Your task to perform on an android device: Show the shopping cart on costco. Image 0: 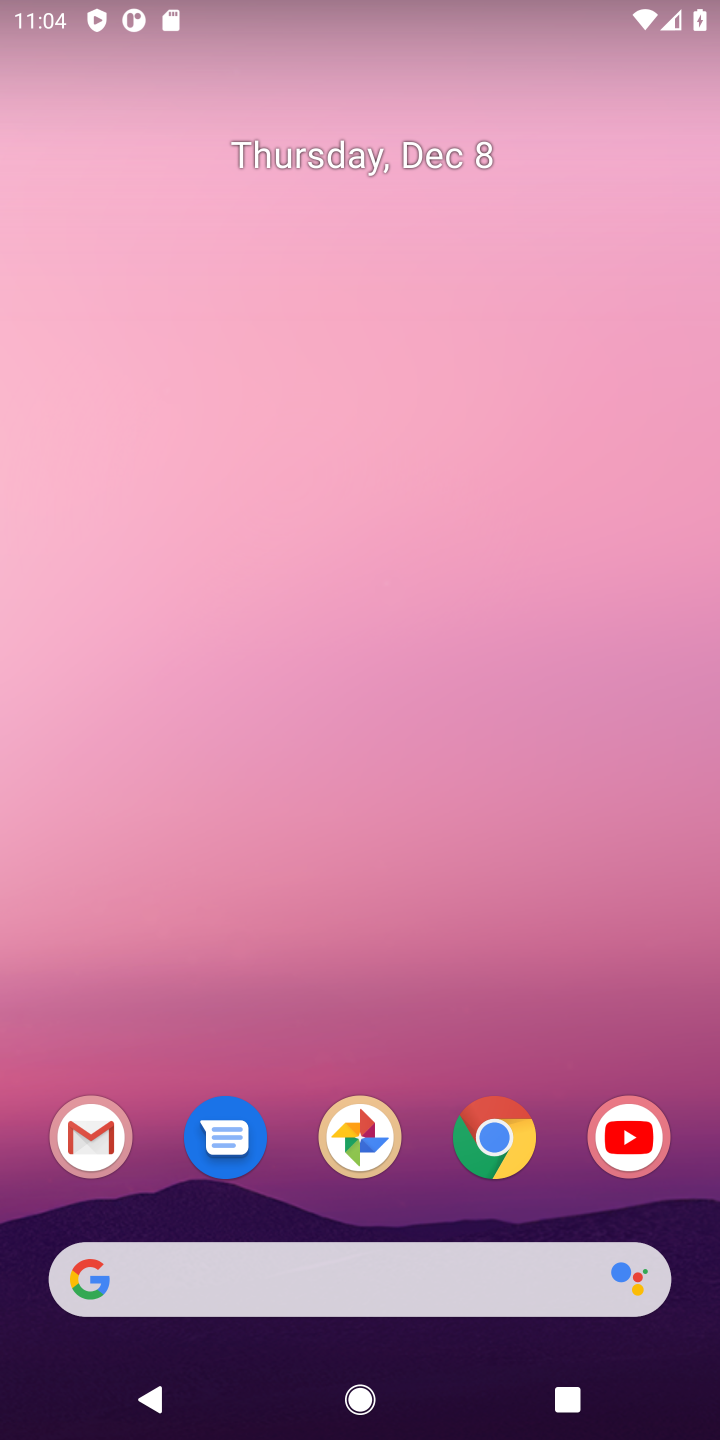
Step 0: click (534, 1132)
Your task to perform on an android device: Show the shopping cart on costco. Image 1: 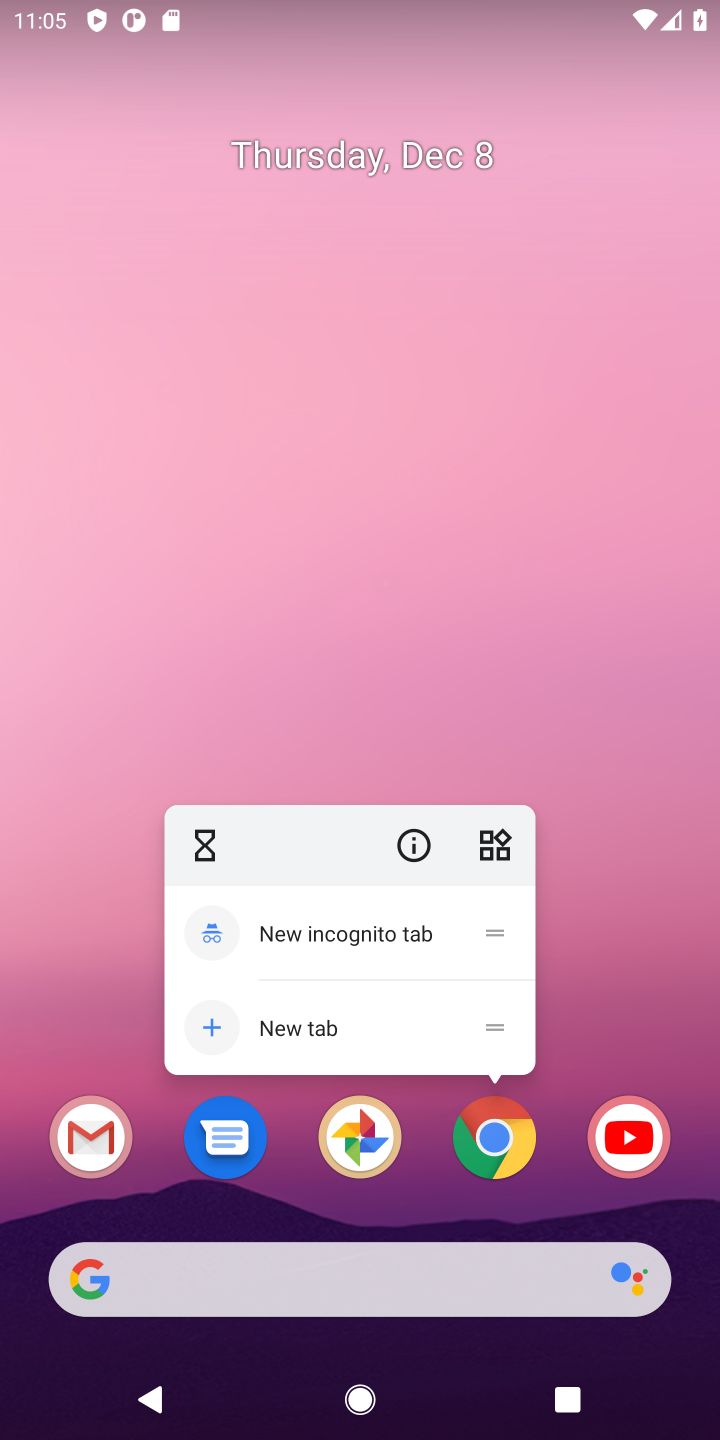
Step 1: click (488, 1107)
Your task to perform on an android device: Show the shopping cart on costco. Image 2: 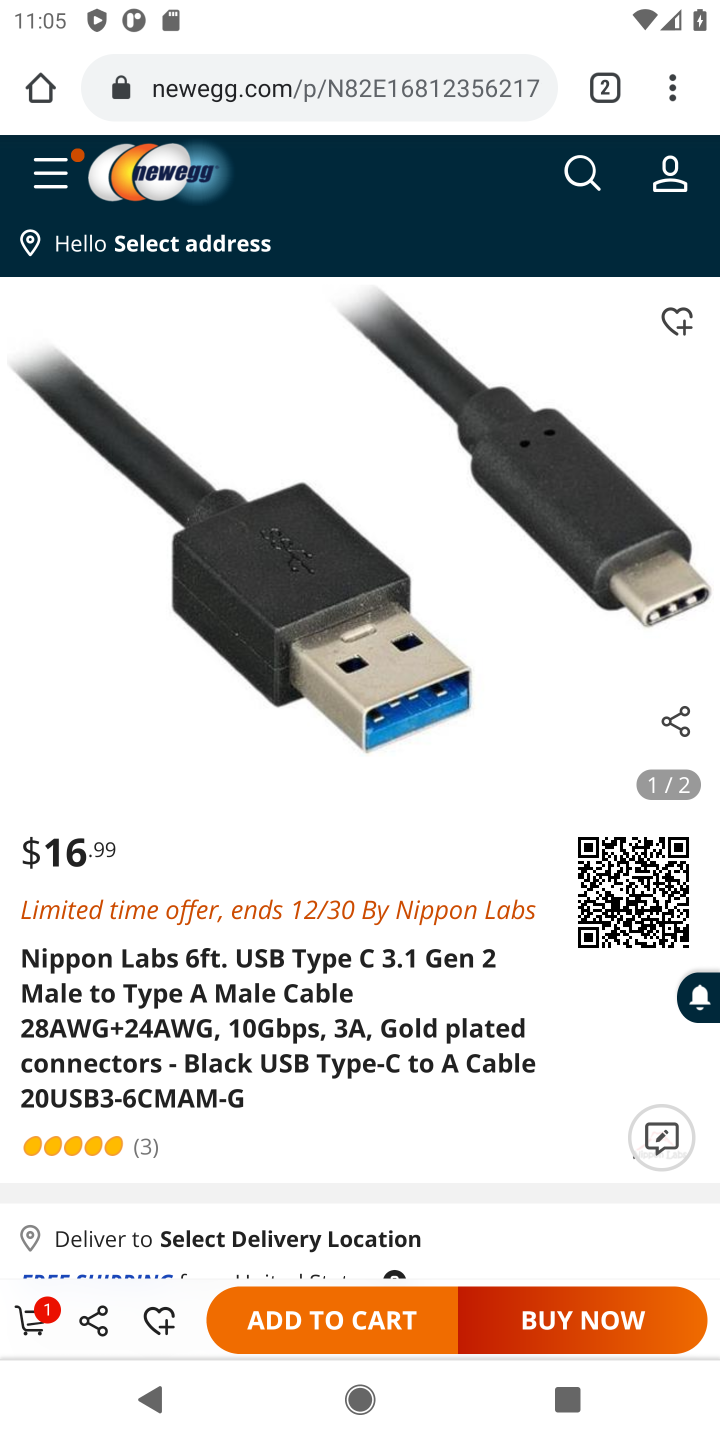
Step 2: click (427, 97)
Your task to perform on an android device: Show the shopping cart on costco. Image 3: 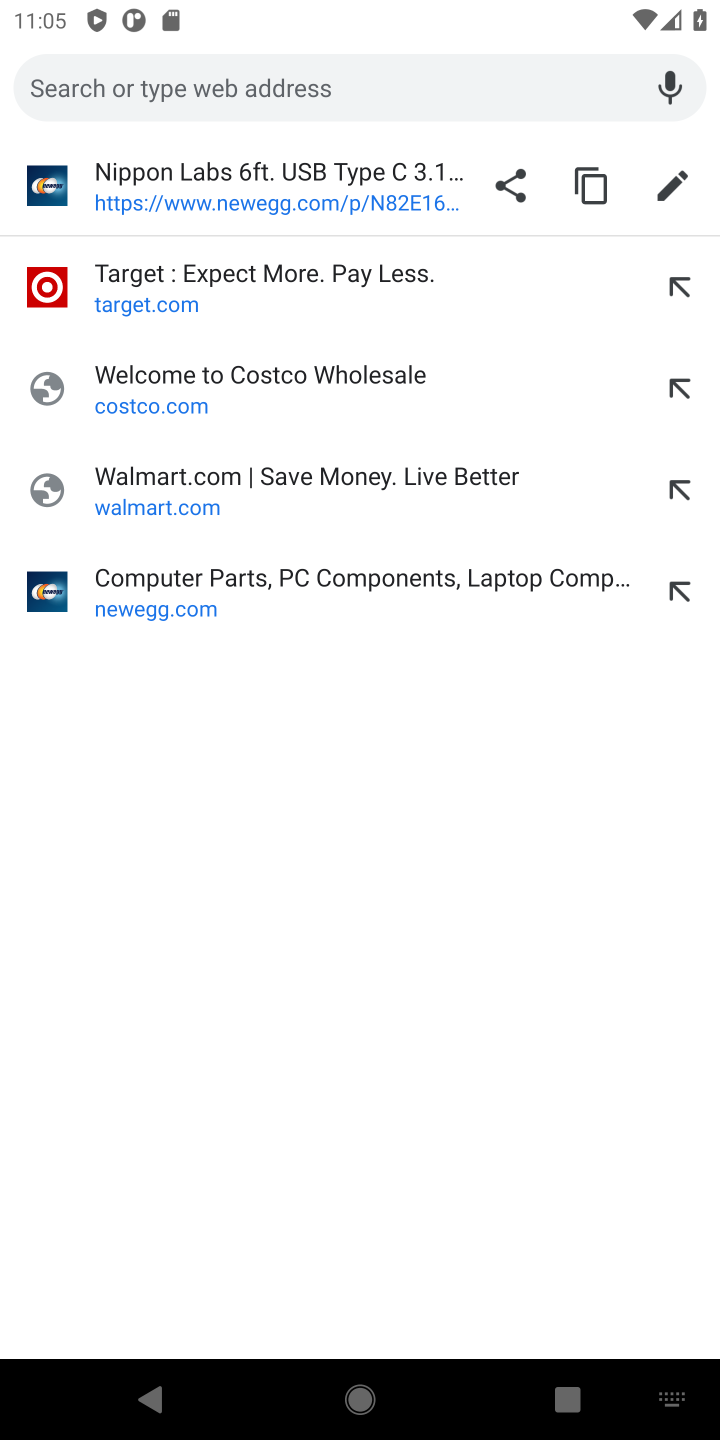
Step 3: type "costco"
Your task to perform on an android device: Show the shopping cart on costco. Image 4: 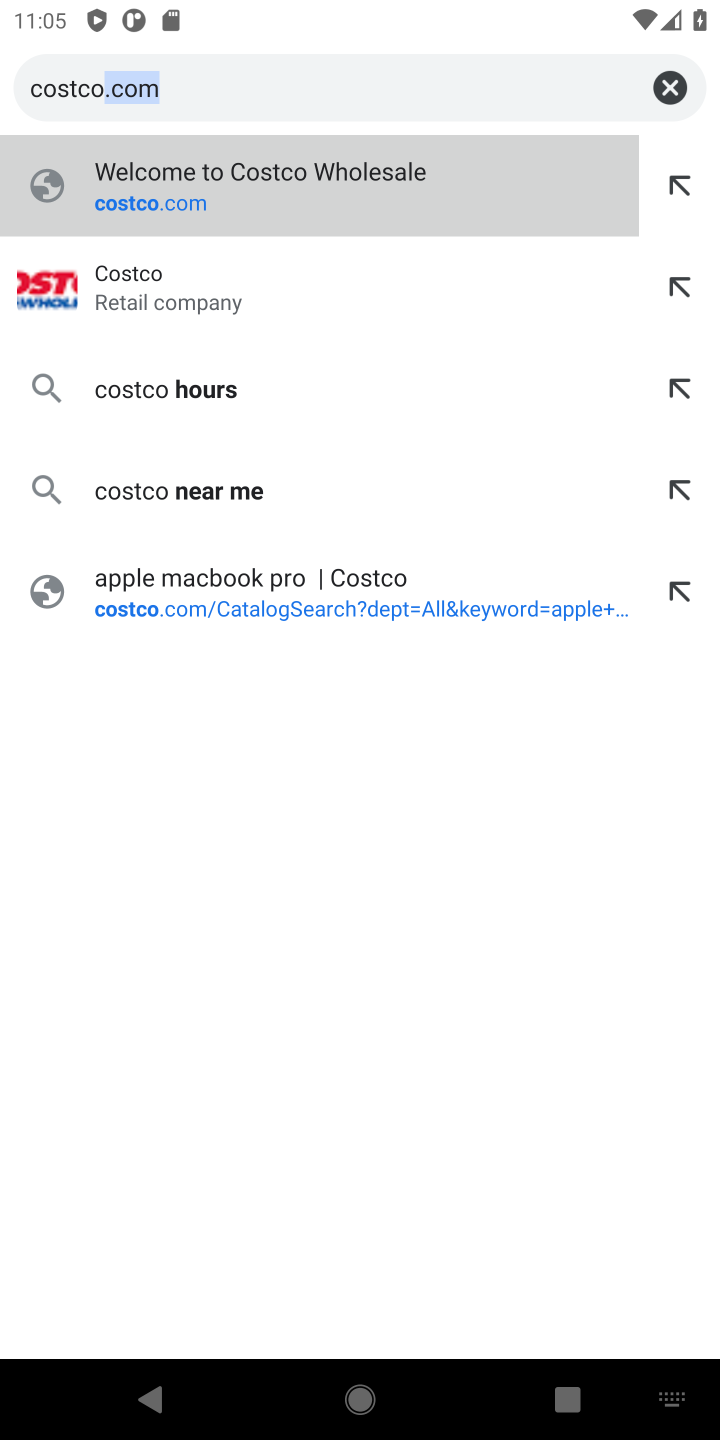
Step 4: click (144, 189)
Your task to perform on an android device: Show the shopping cart on costco. Image 5: 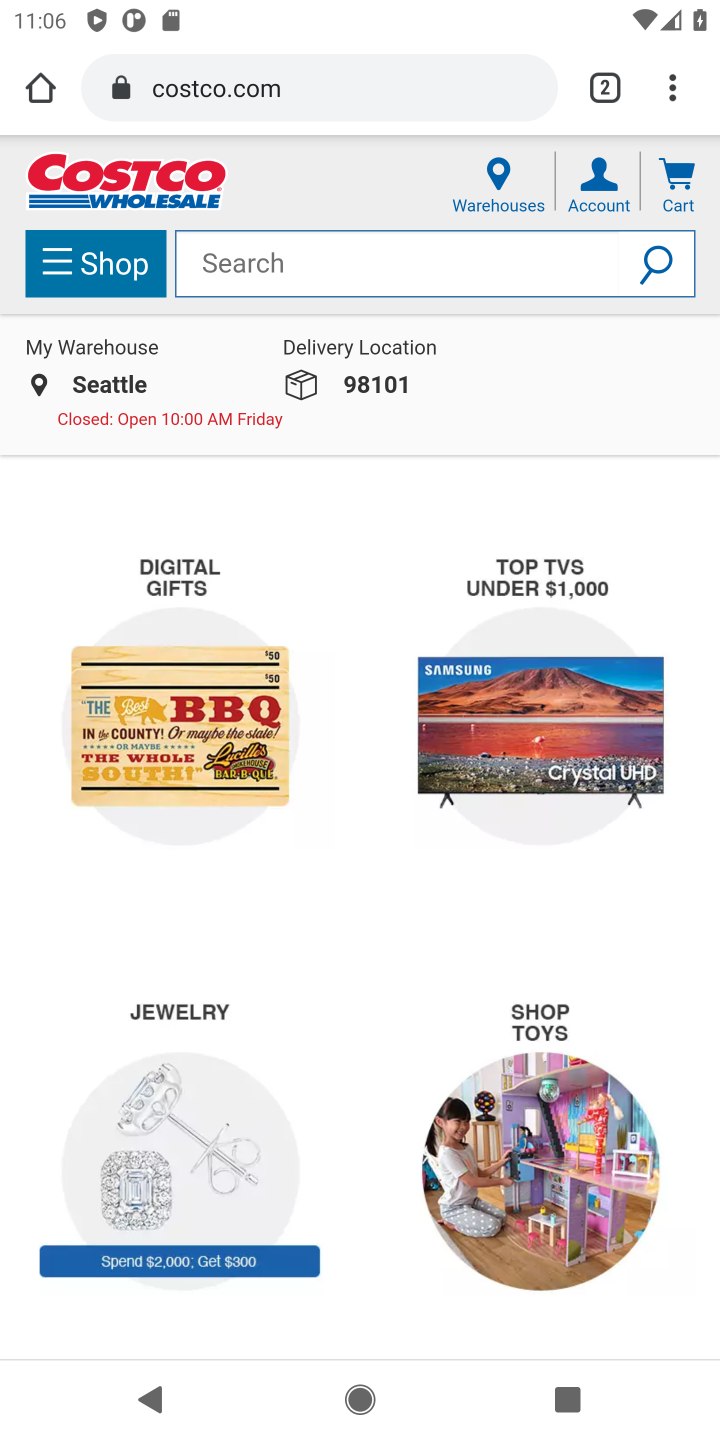
Step 5: click (682, 185)
Your task to perform on an android device: Show the shopping cart on costco. Image 6: 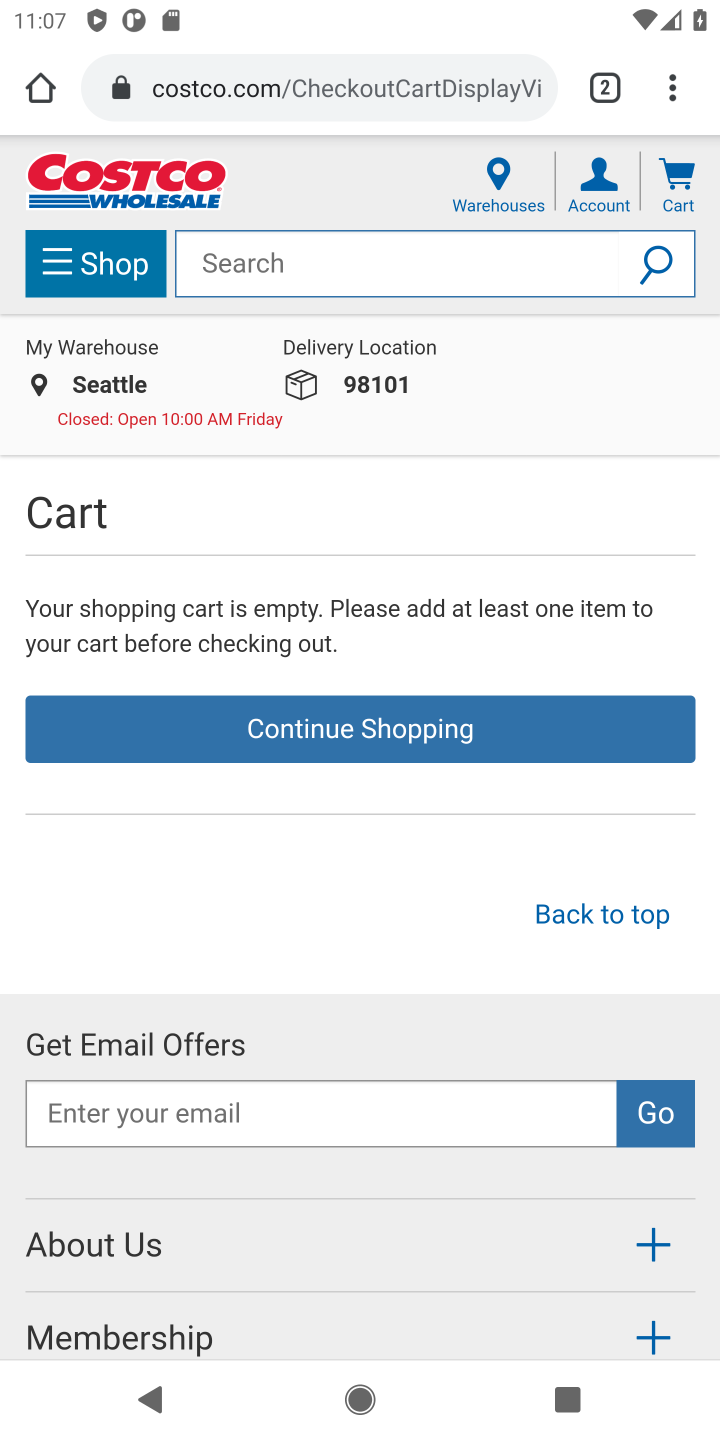
Step 6: task complete